Your task to perform on an android device: all mails in gmail Image 0: 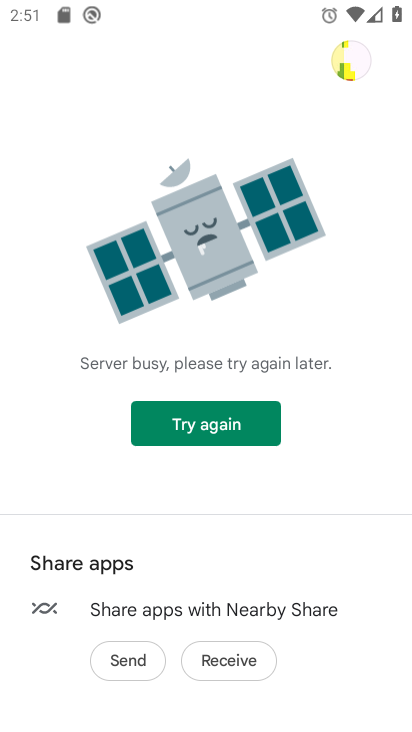
Step 0: press back button
Your task to perform on an android device: all mails in gmail Image 1: 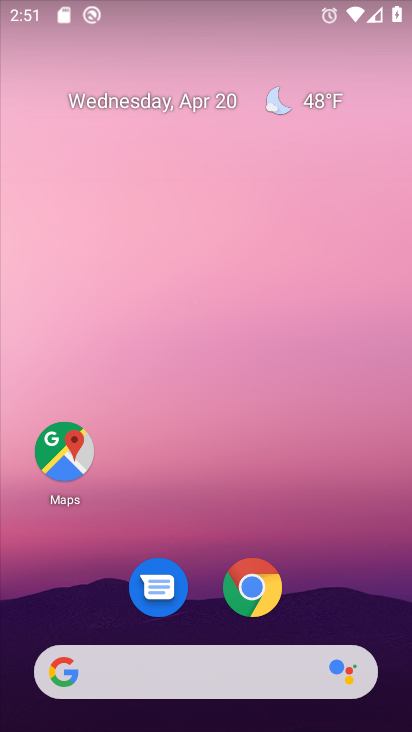
Step 1: drag from (172, 633) to (332, 161)
Your task to perform on an android device: all mails in gmail Image 2: 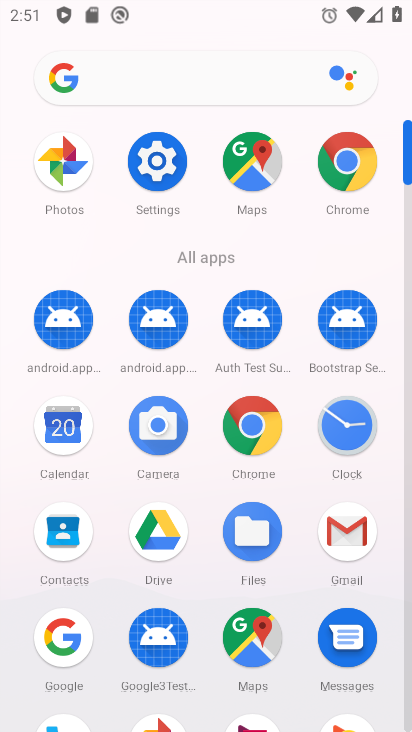
Step 2: click (342, 547)
Your task to perform on an android device: all mails in gmail Image 3: 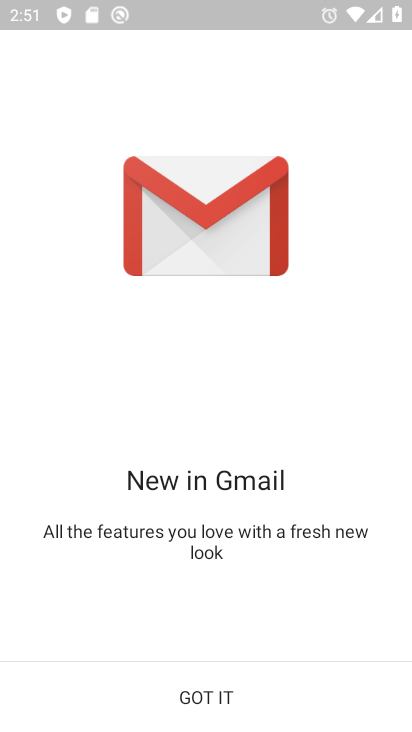
Step 3: click (243, 685)
Your task to perform on an android device: all mails in gmail Image 4: 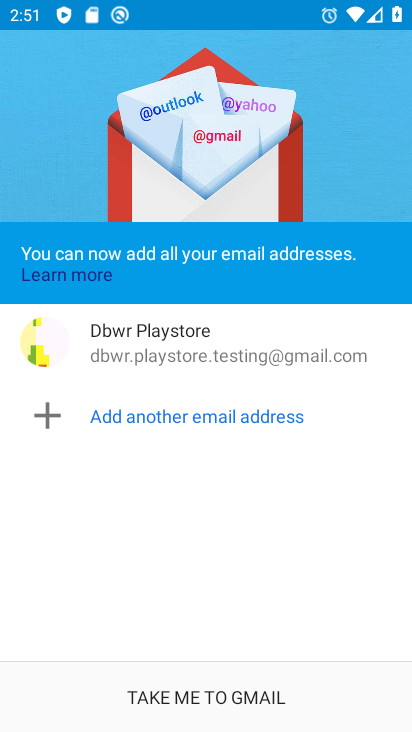
Step 4: click (227, 689)
Your task to perform on an android device: all mails in gmail Image 5: 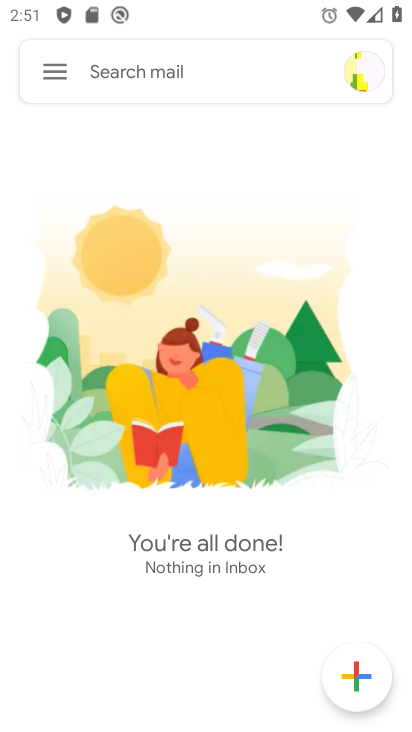
Step 5: click (55, 69)
Your task to perform on an android device: all mails in gmail Image 6: 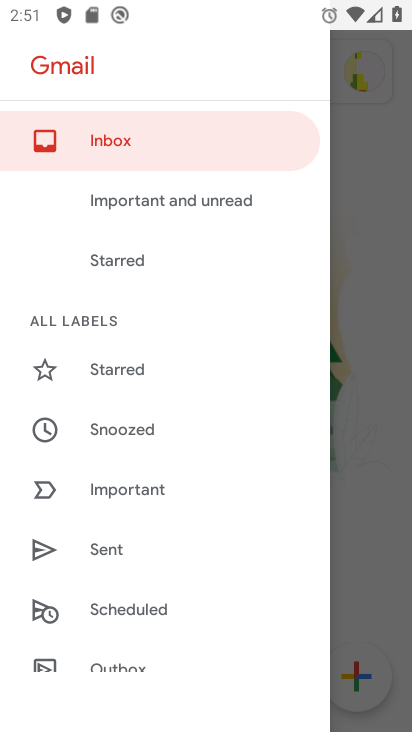
Step 6: drag from (102, 647) to (233, 316)
Your task to perform on an android device: all mails in gmail Image 7: 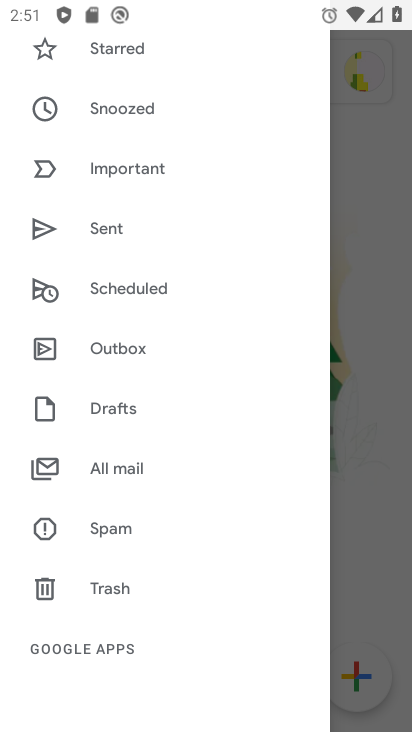
Step 7: click (156, 465)
Your task to perform on an android device: all mails in gmail Image 8: 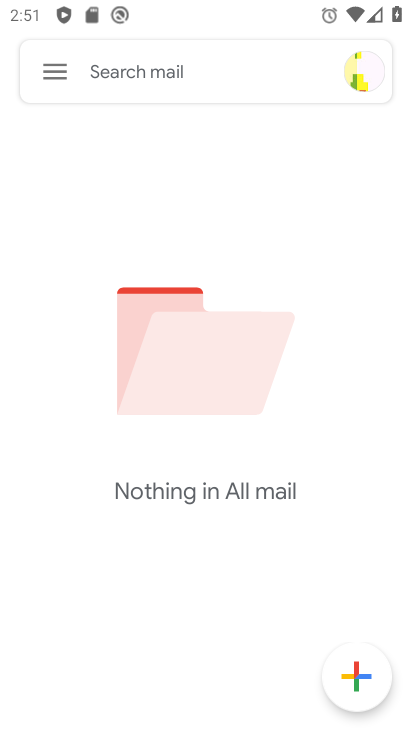
Step 8: task complete